Your task to perform on an android device: open app "AliExpress" (install if not already installed) Image 0: 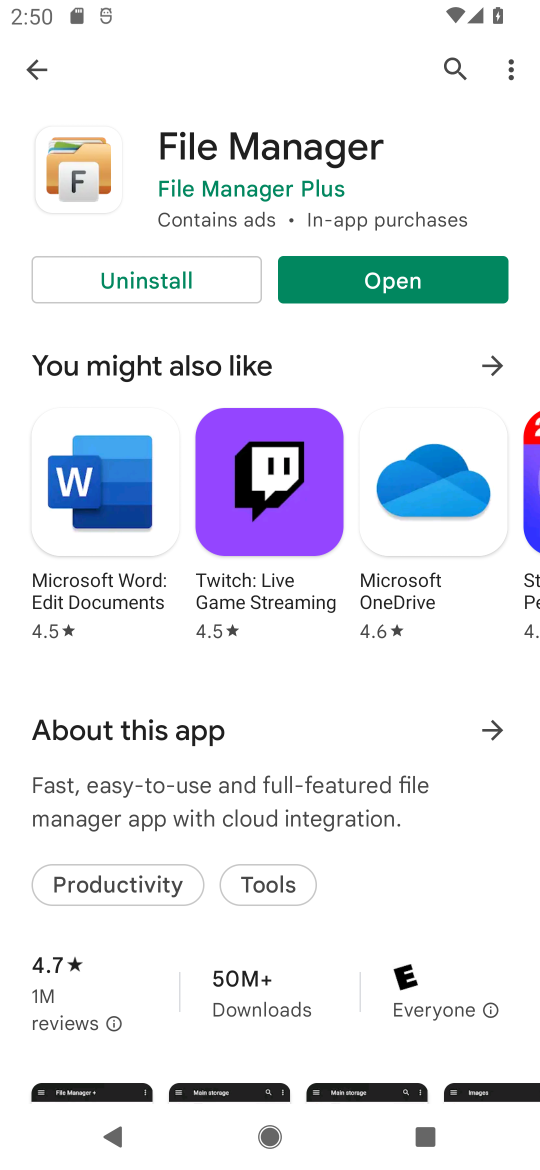
Step 0: press home button
Your task to perform on an android device: open app "AliExpress" (install if not already installed) Image 1: 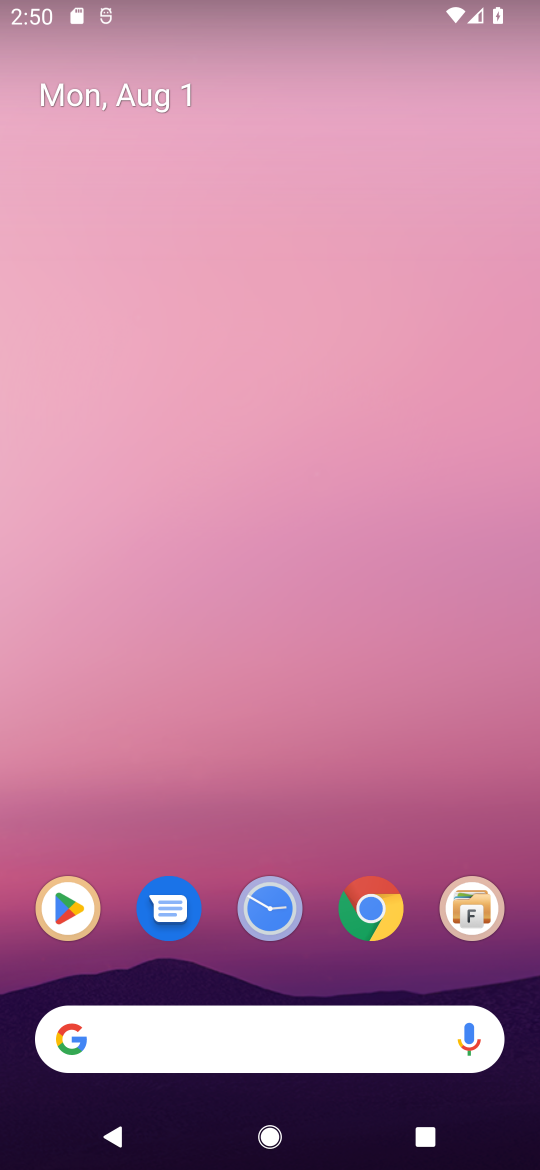
Step 1: click (65, 905)
Your task to perform on an android device: open app "AliExpress" (install if not already installed) Image 2: 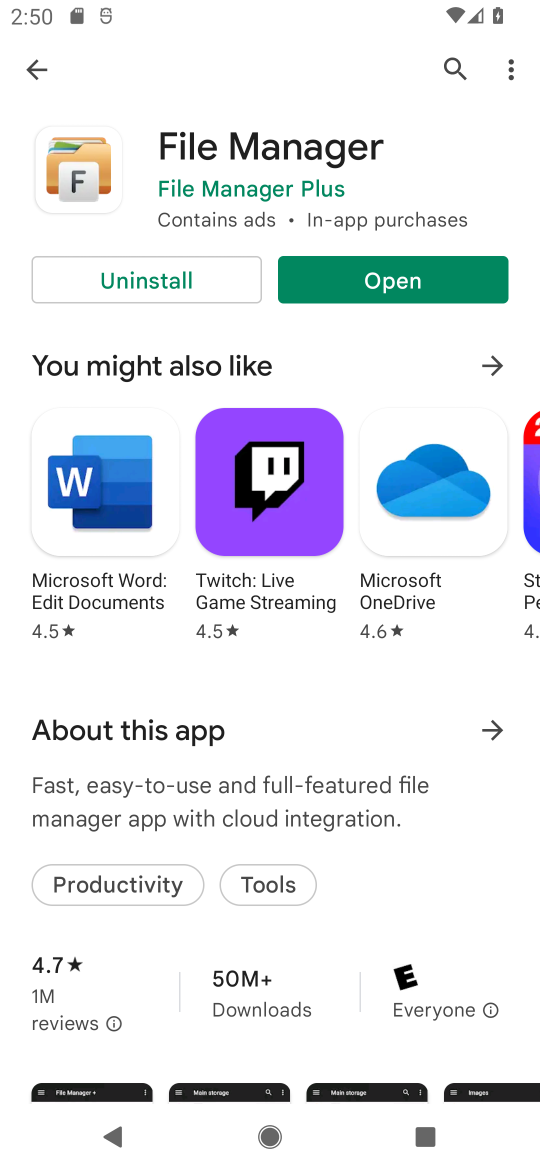
Step 2: click (49, 62)
Your task to perform on an android device: open app "AliExpress" (install if not already installed) Image 3: 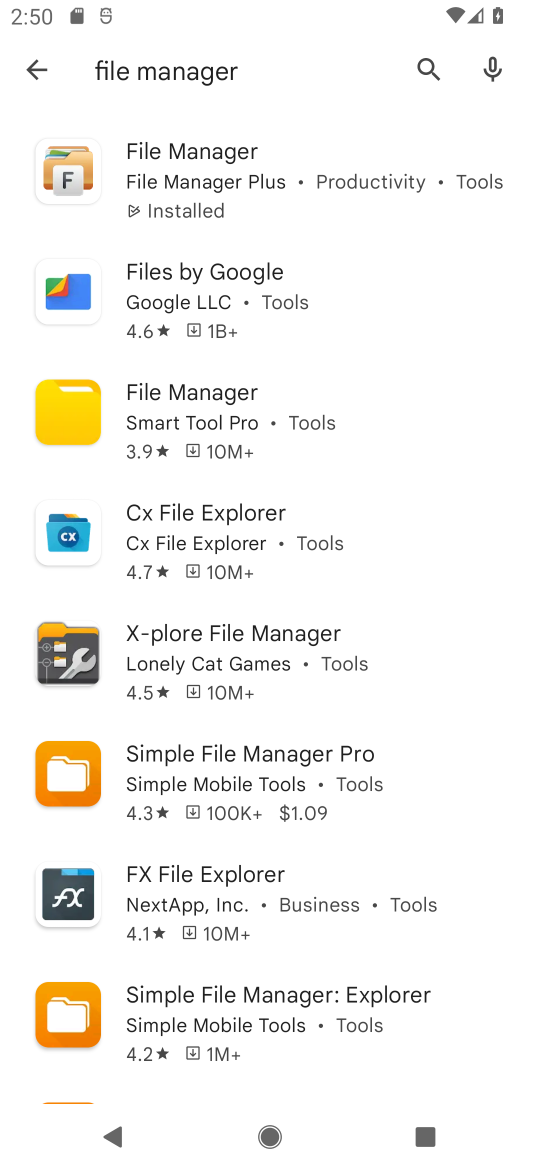
Step 3: click (421, 59)
Your task to perform on an android device: open app "AliExpress" (install if not already installed) Image 4: 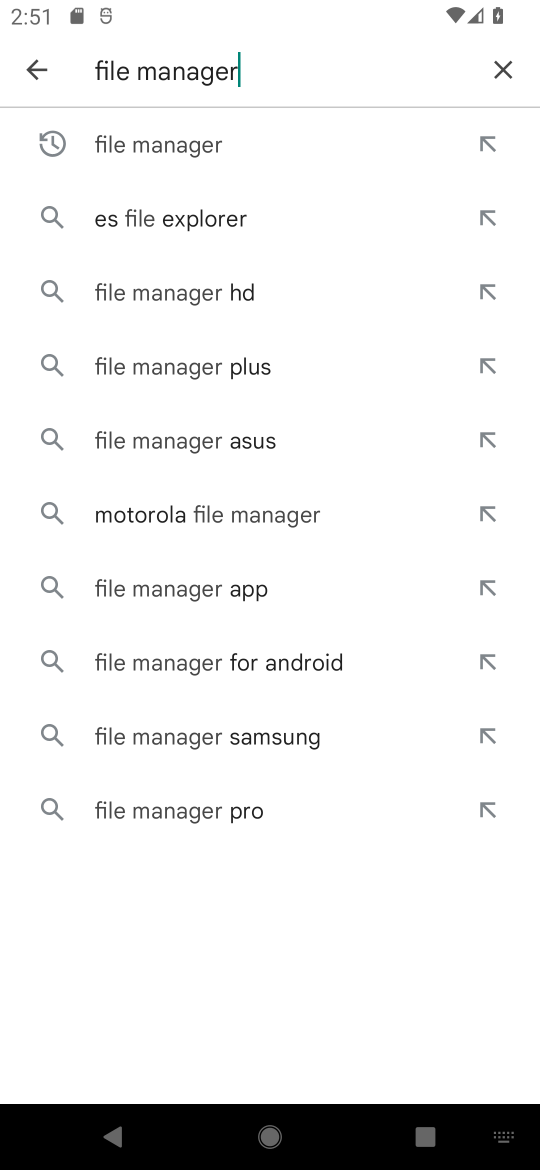
Step 4: click (497, 66)
Your task to perform on an android device: open app "AliExpress" (install if not already installed) Image 5: 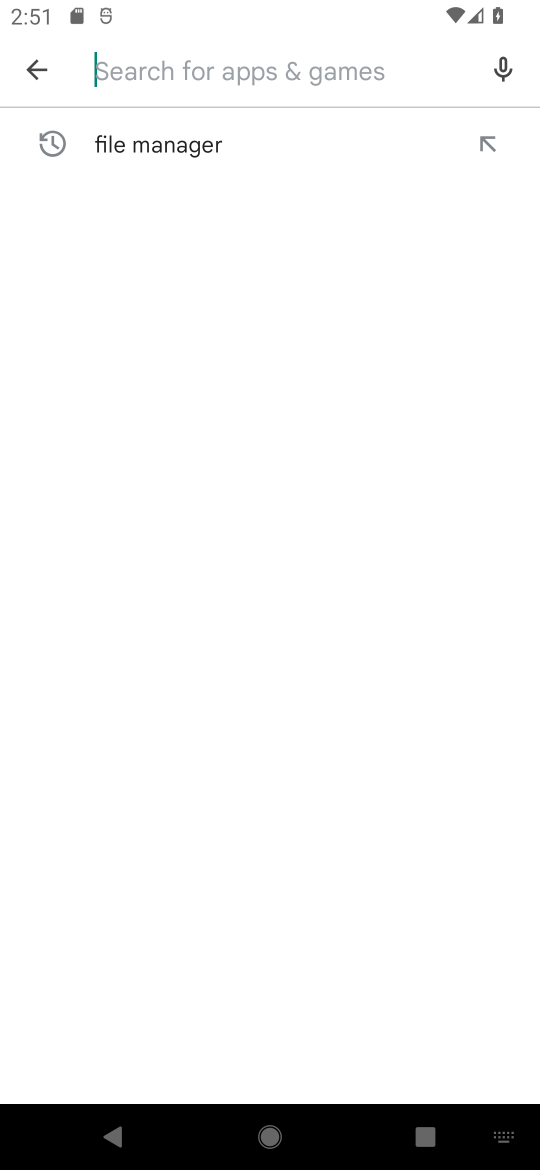
Step 5: click (497, 66)
Your task to perform on an android device: open app "AliExpress" (install if not already installed) Image 6: 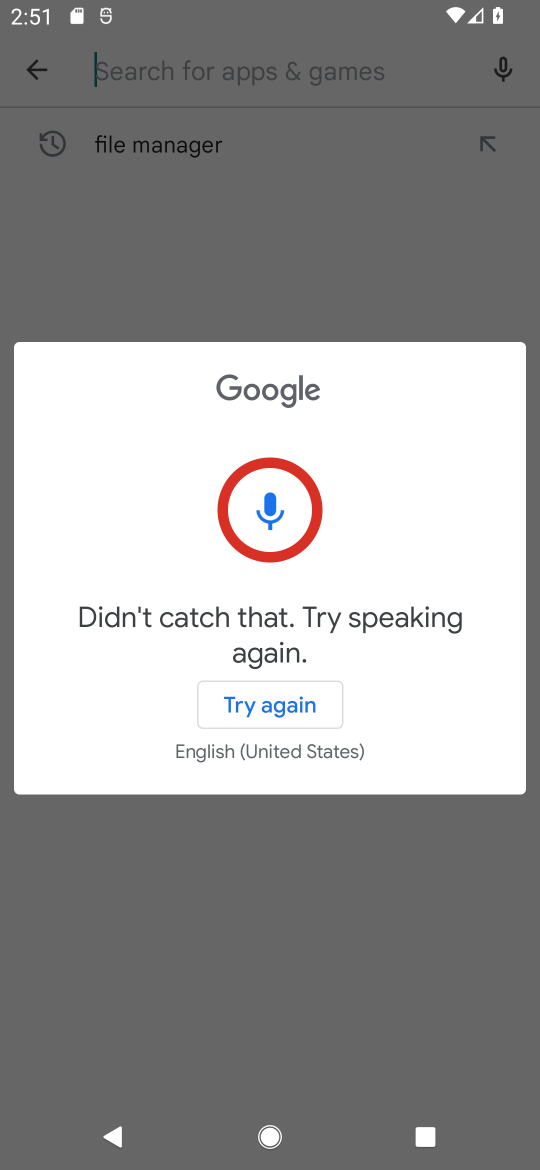
Step 6: click (312, 826)
Your task to perform on an android device: open app "AliExpress" (install if not already installed) Image 7: 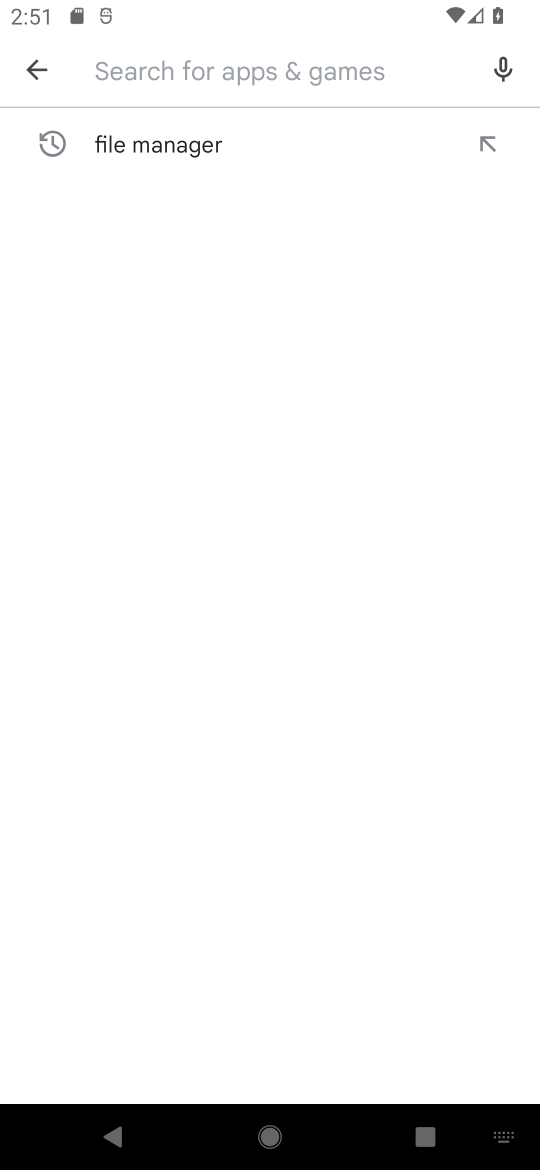
Step 7: type "AliExpress"
Your task to perform on an android device: open app "AliExpress" (install if not already installed) Image 8: 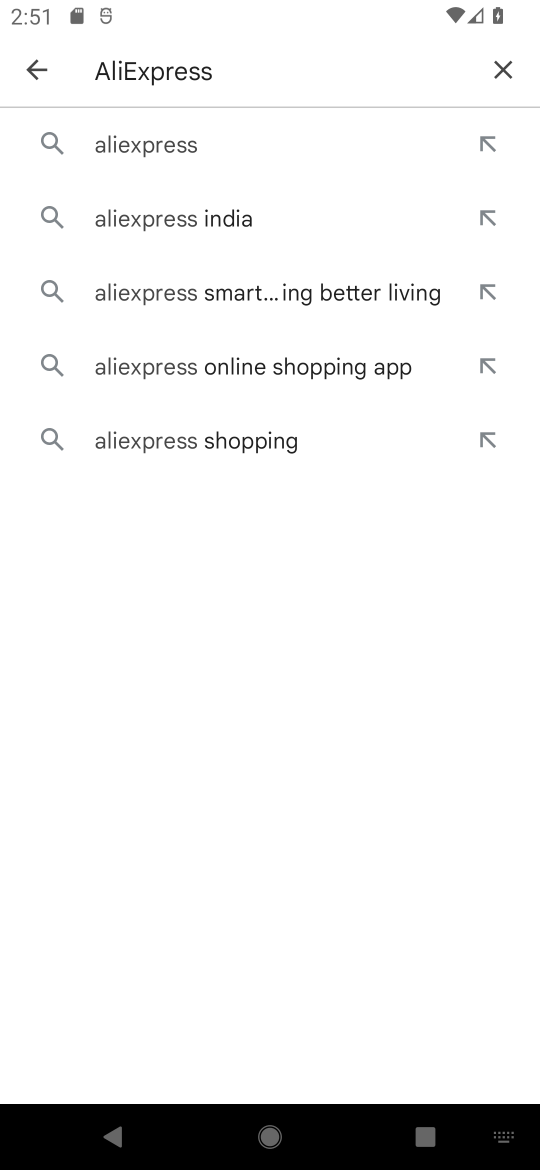
Step 8: click (172, 146)
Your task to perform on an android device: open app "AliExpress" (install if not already installed) Image 9: 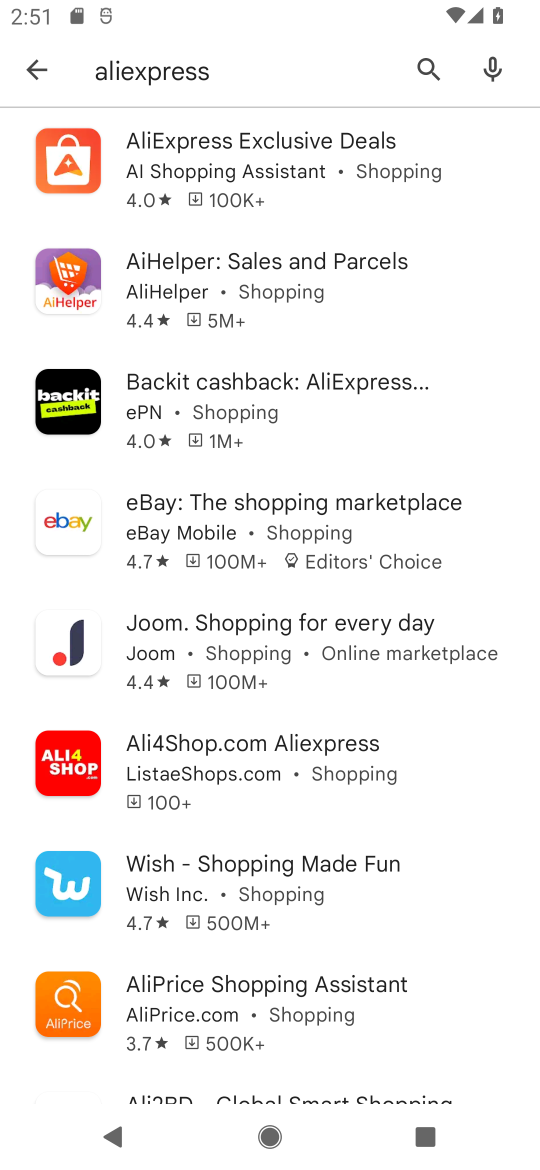
Step 9: click (385, 214)
Your task to perform on an android device: open app "AliExpress" (install if not already installed) Image 10: 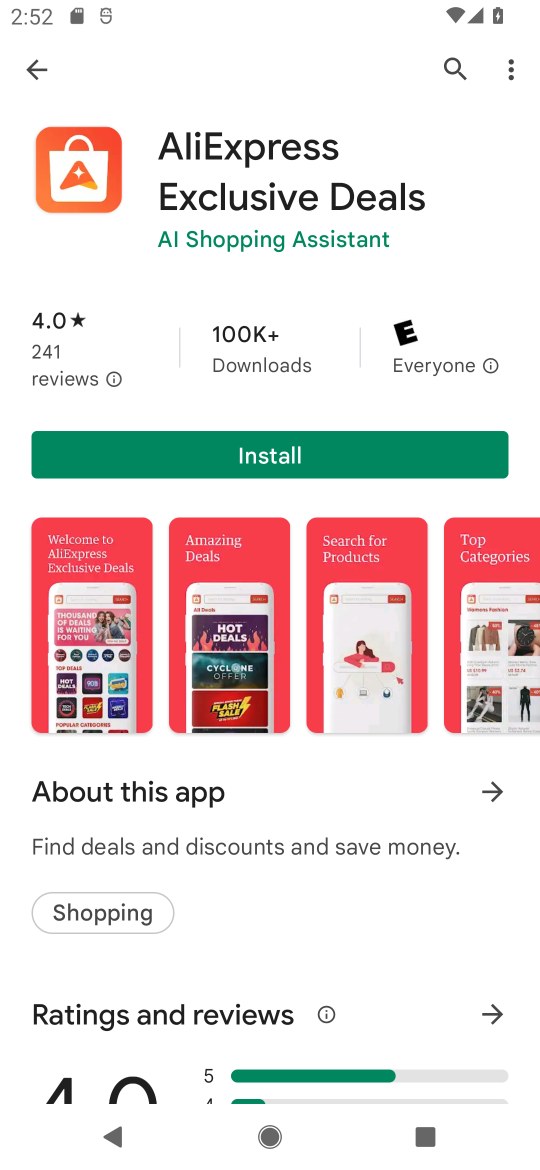
Step 10: click (250, 437)
Your task to perform on an android device: open app "AliExpress" (install if not already installed) Image 11: 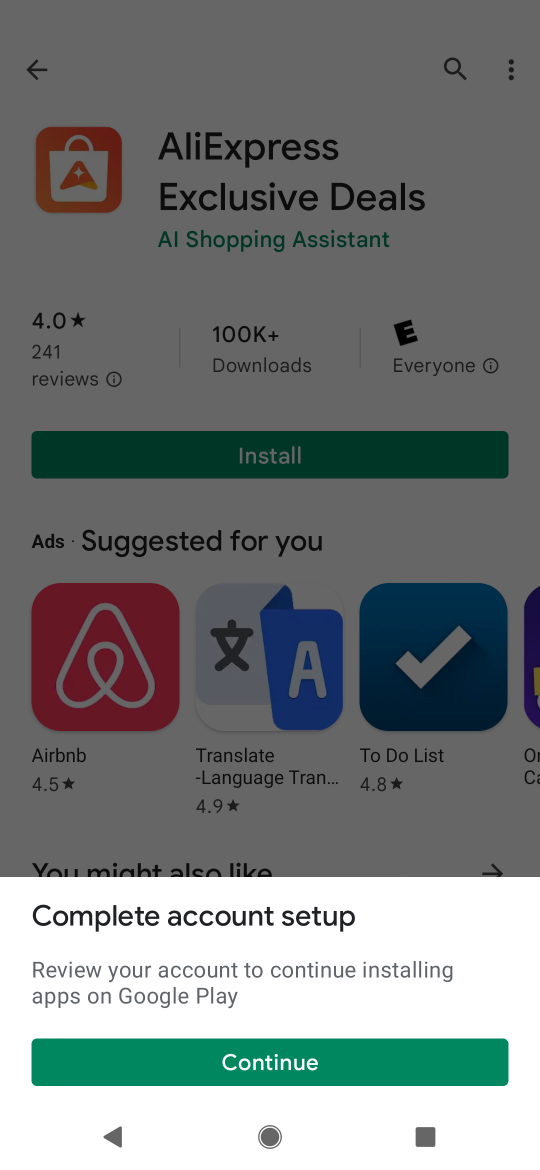
Step 11: click (223, 1074)
Your task to perform on an android device: open app "AliExpress" (install if not already installed) Image 12: 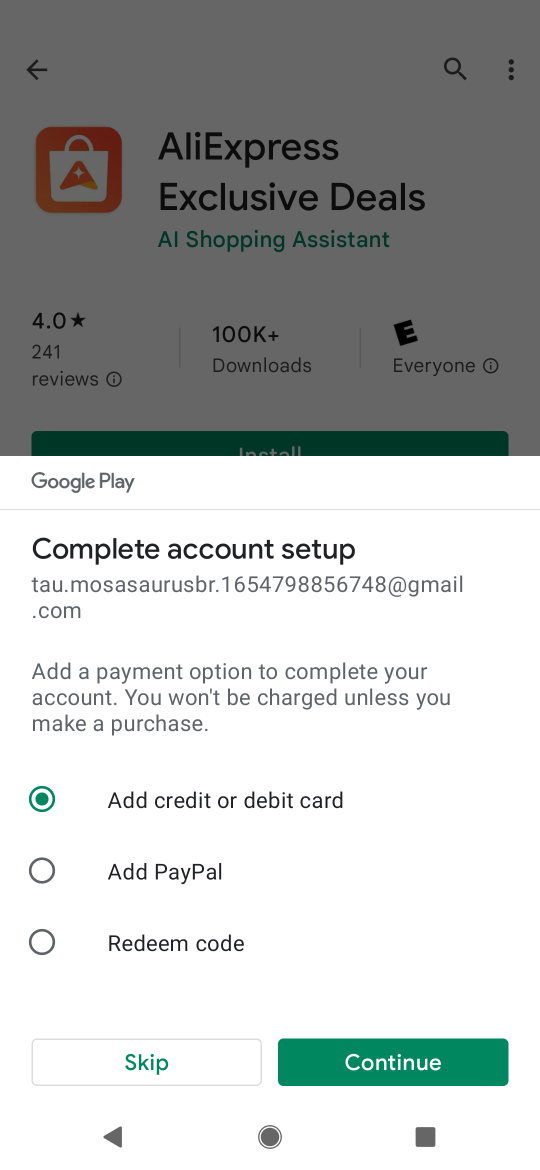
Step 12: click (223, 1074)
Your task to perform on an android device: open app "AliExpress" (install if not already installed) Image 13: 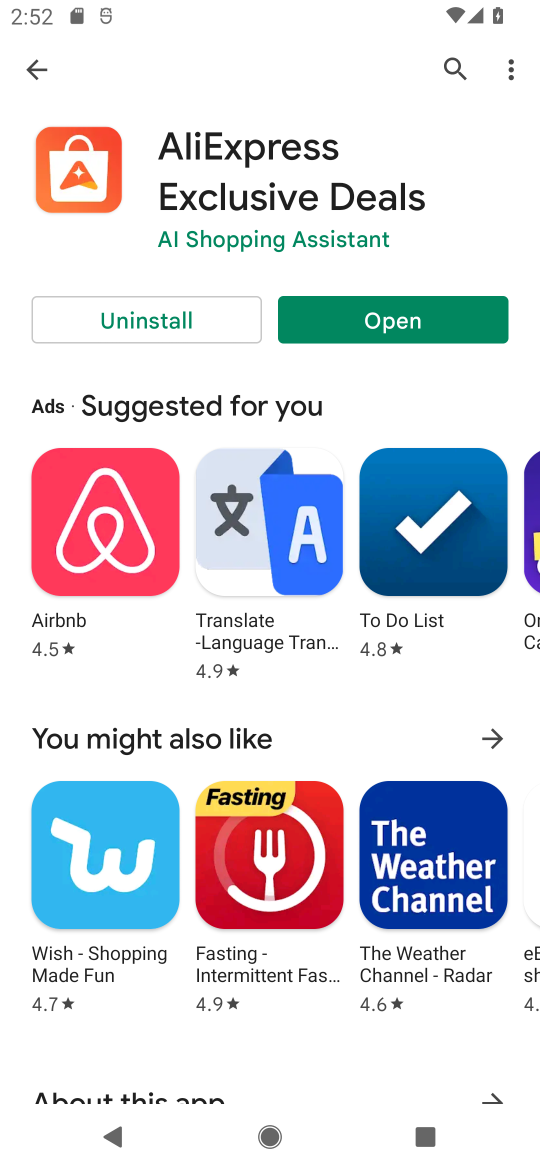
Step 13: click (415, 320)
Your task to perform on an android device: open app "AliExpress" (install if not already installed) Image 14: 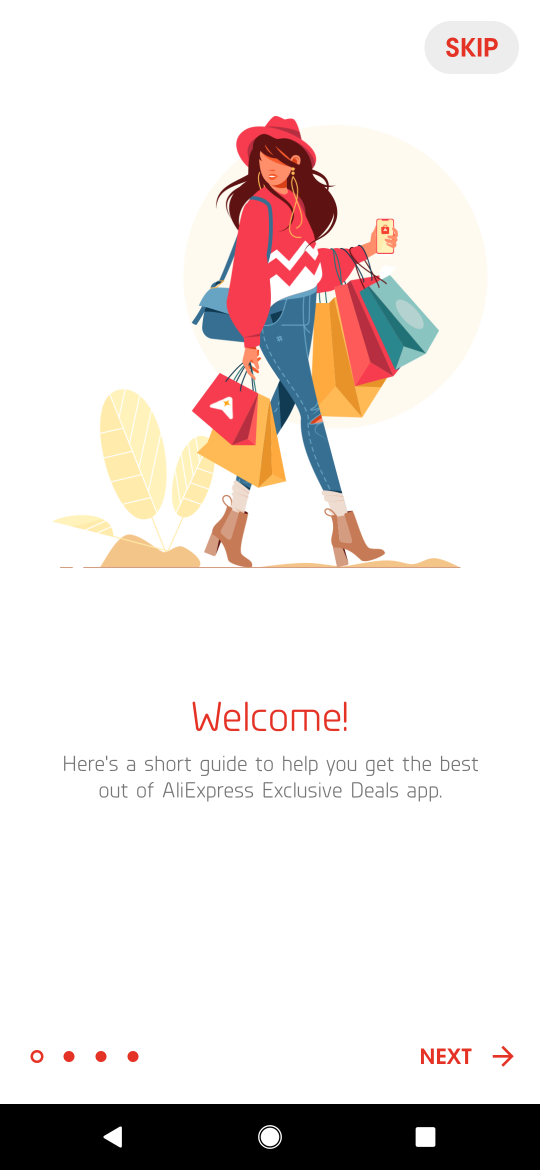
Step 14: press back button
Your task to perform on an android device: open app "AliExpress" (install if not already installed) Image 15: 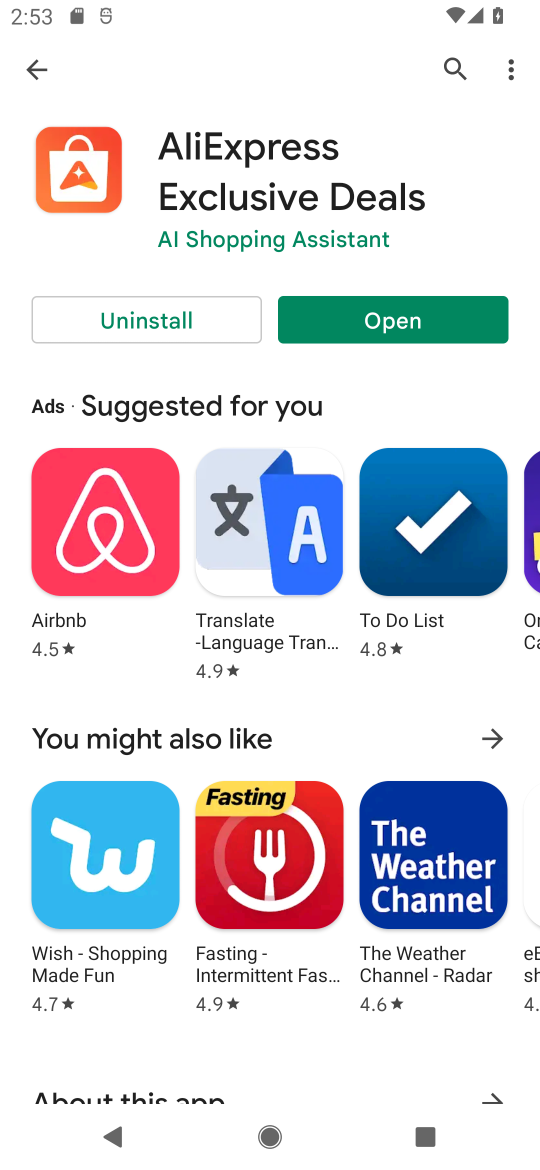
Step 15: click (402, 330)
Your task to perform on an android device: open app "AliExpress" (install if not already installed) Image 16: 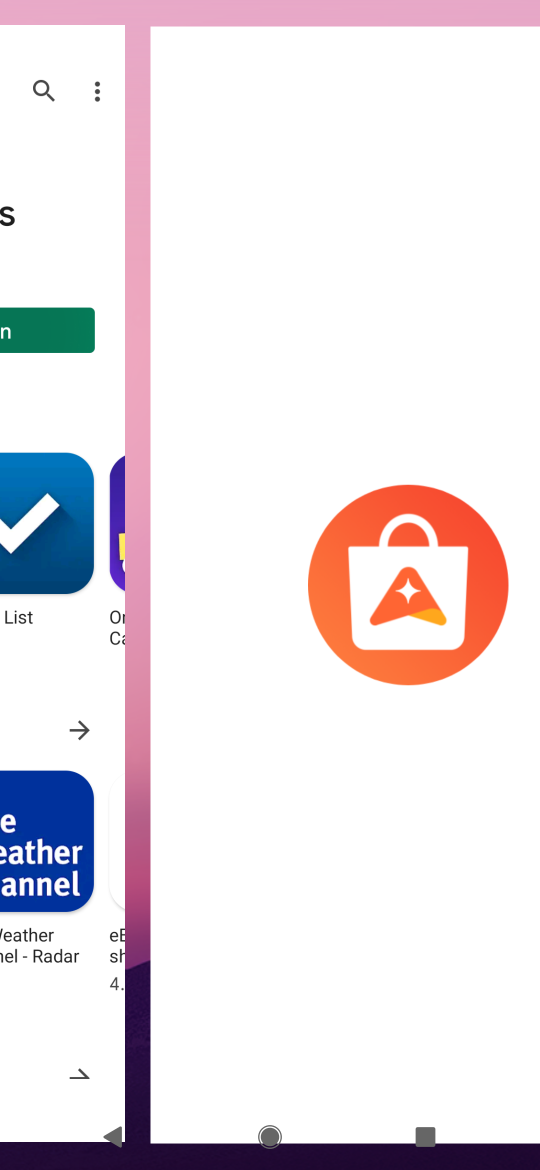
Step 16: task complete